Your task to perform on an android device: Search for Italian restaurants on Maps Image 0: 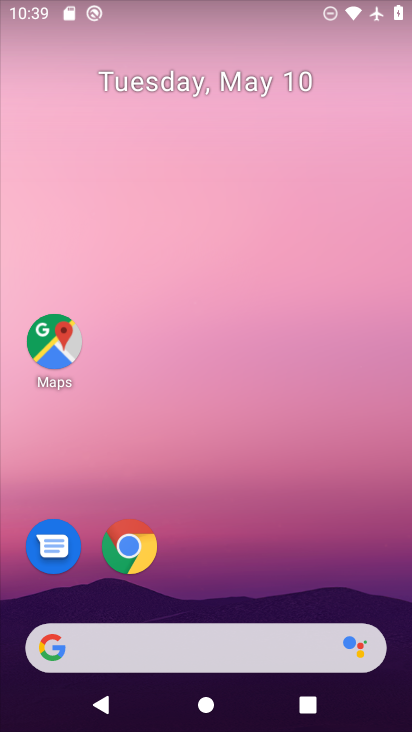
Step 0: click (56, 342)
Your task to perform on an android device: Search for Italian restaurants on Maps Image 1: 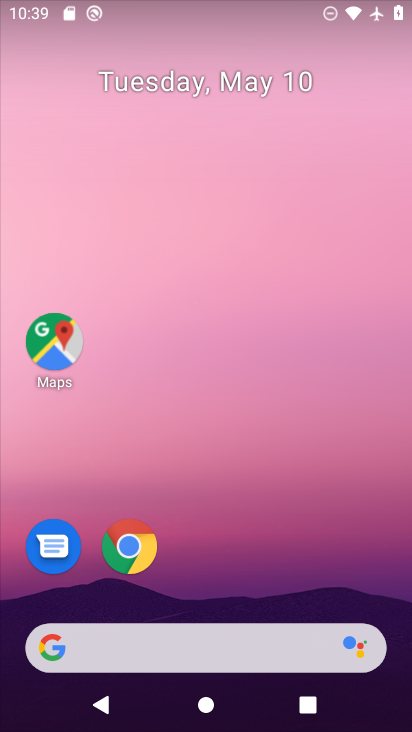
Step 1: click (56, 342)
Your task to perform on an android device: Search for Italian restaurants on Maps Image 2: 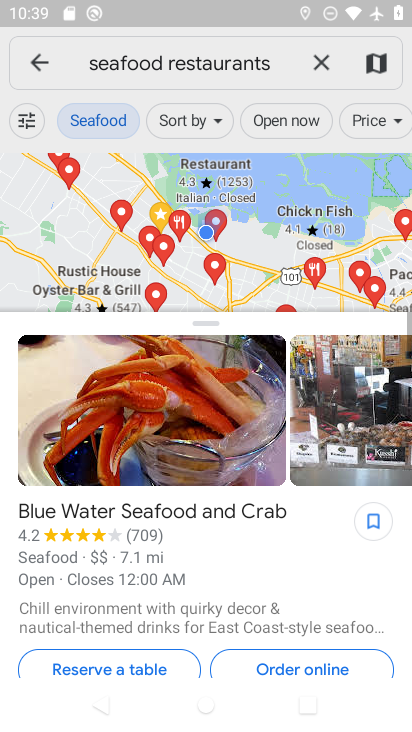
Step 2: click (272, 59)
Your task to perform on an android device: Search for Italian restaurants on Maps Image 3: 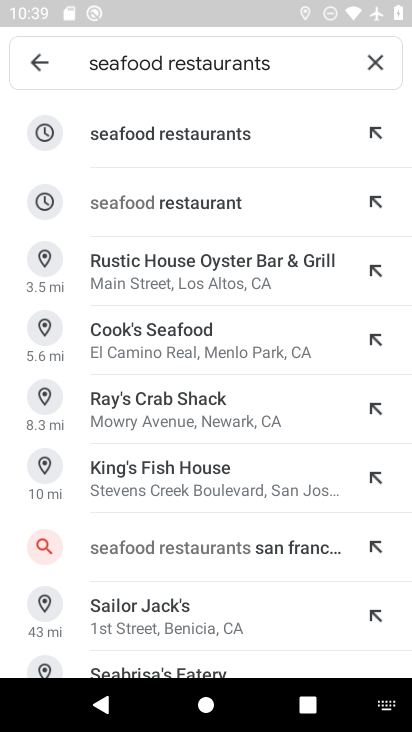
Step 3: click (373, 61)
Your task to perform on an android device: Search for Italian restaurants on Maps Image 4: 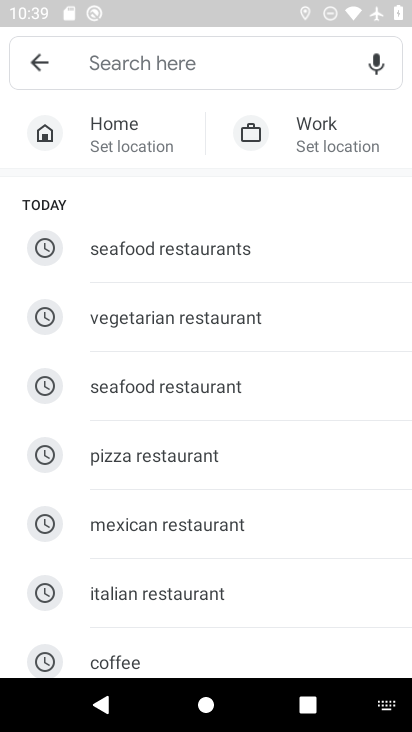
Step 4: type "Italian restaurants"
Your task to perform on an android device: Search for Italian restaurants on Maps Image 5: 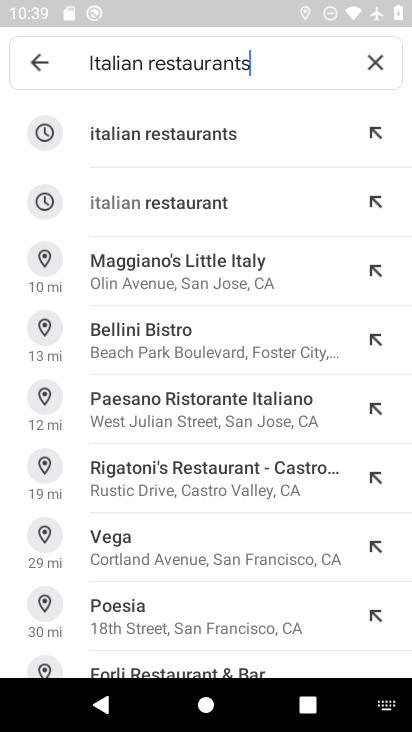
Step 5: click (234, 142)
Your task to perform on an android device: Search for Italian restaurants on Maps Image 6: 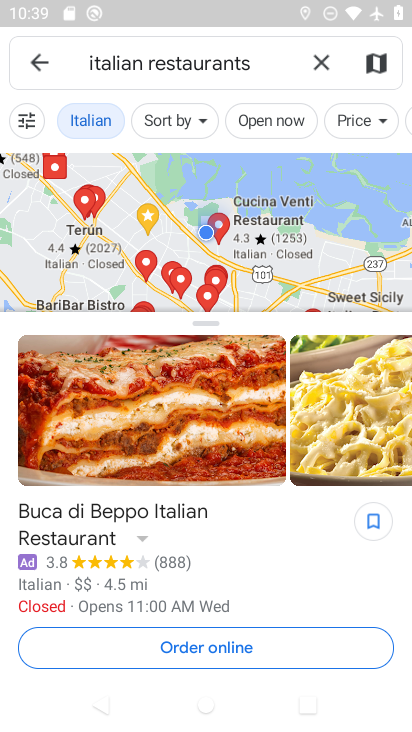
Step 6: task complete